Your task to perform on an android device: set default search engine in the chrome app Image 0: 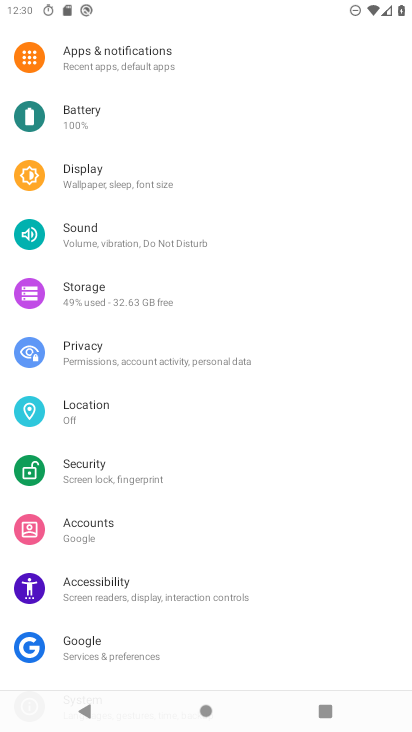
Step 0: press home button
Your task to perform on an android device: set default search engine in the chrome app Image 1: 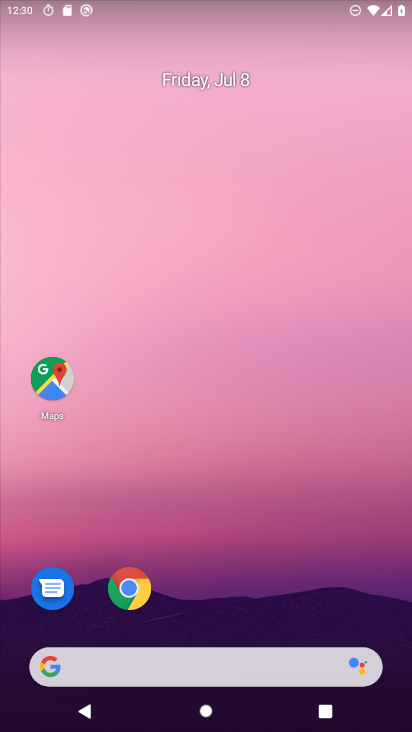
Step 1: drag from (307, 553) to (263, 44)
Your task to perform on an android device: set default search engine in the chrome app Image 2: 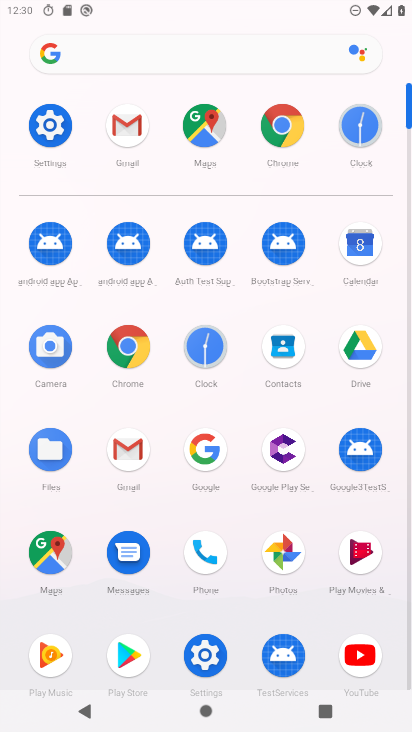
Step 2: click (127, 347)
Your task to perform on an android device: set default search engine in the chrome app Image 3: 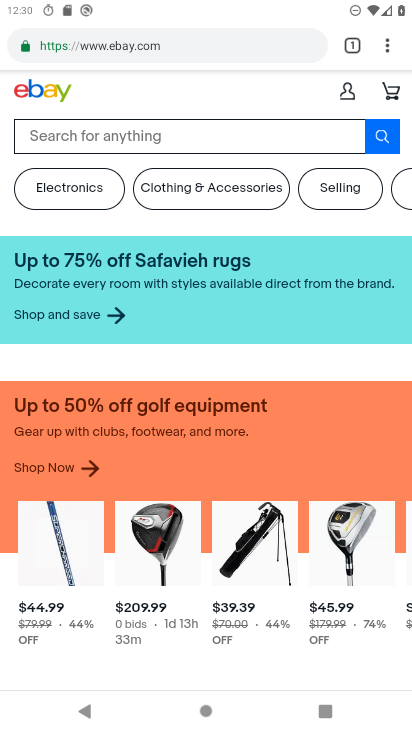
Step 3: click (389, 38)
Your task to perform on an android device: set default search engine in the chrome app Image 4: 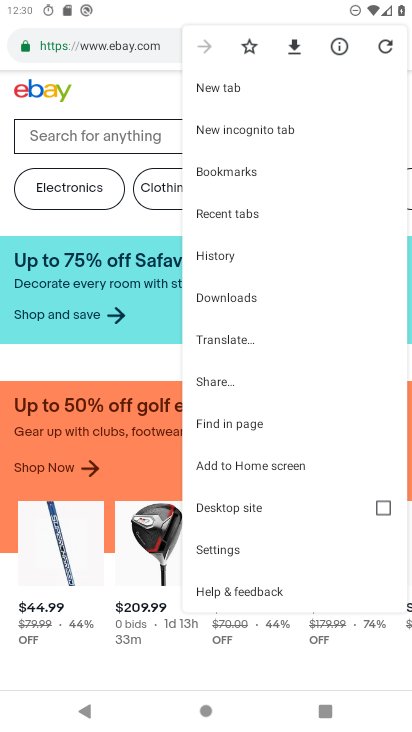
Step 4: click (233, 551)
Your task to perform on an android device: set default search engine in the chrome app Image 5: 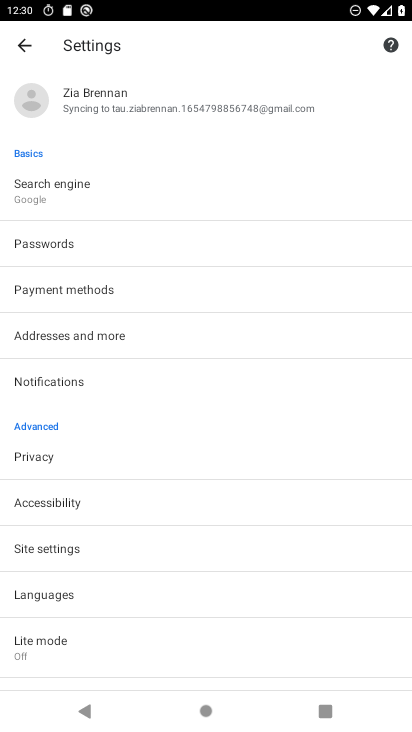
Step 5: click (70, 208)
Your task to perform on an android device: set default search engine in the chrome app Image 6: 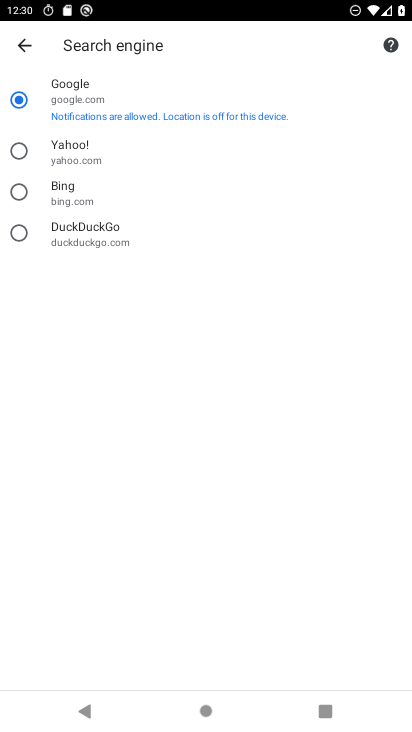
Step 6: task complete